Your task to perform on an android device: toggle translation in the chrome app Image 0: 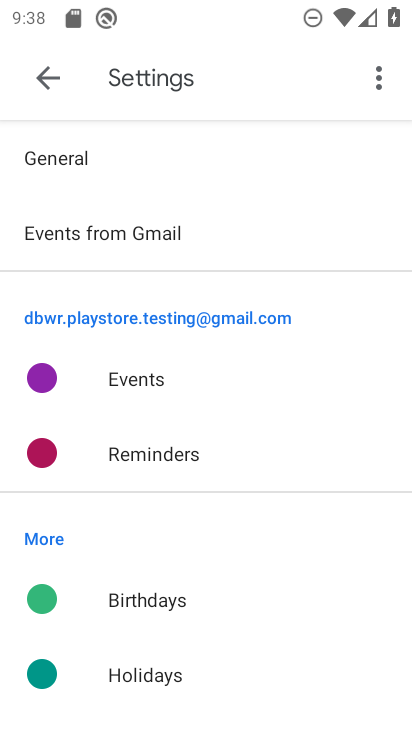
Step 0: press home button
Your task to perform on an android device: toggle translation in the chrome app Image 1: 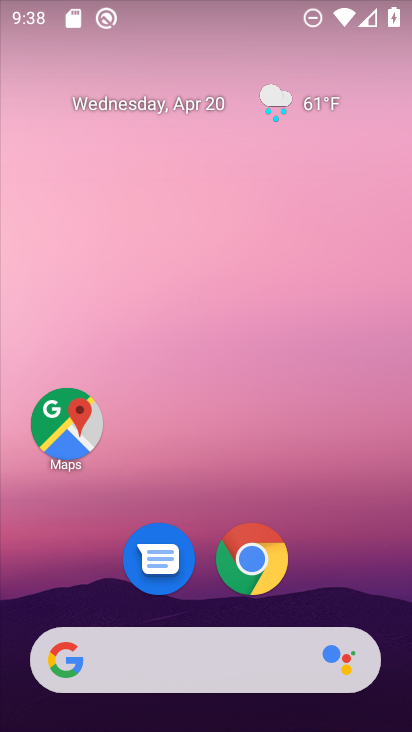
Step 1: click (250, 560)
Your task to perform on an android device: toggle translation in the chrome app Image 2: 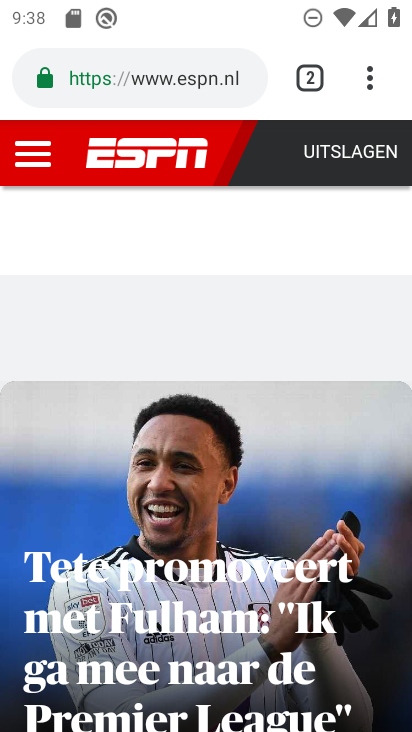
Step 2: click (365, 86)
Your task to perform on an android device: toggle translation in the chrome app Image 3: 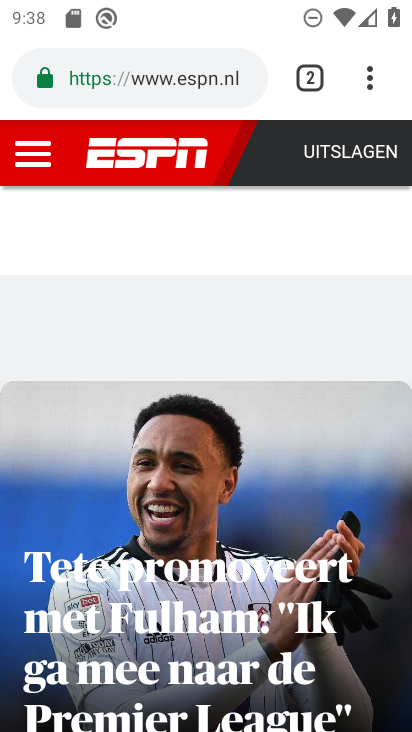
Step 3: click (367, 88)
Your task to perform on an android device: toggle translation in the chrome app Image 4: 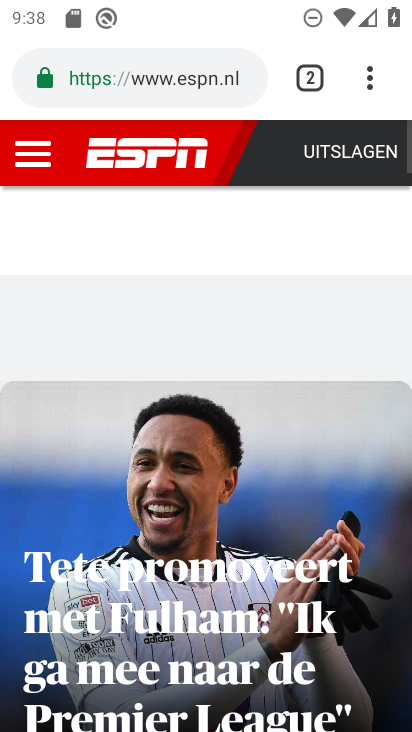
Step 4: click (367, 88)
Your task to perform on an android device: toggle translation in the chrome app Image 5: 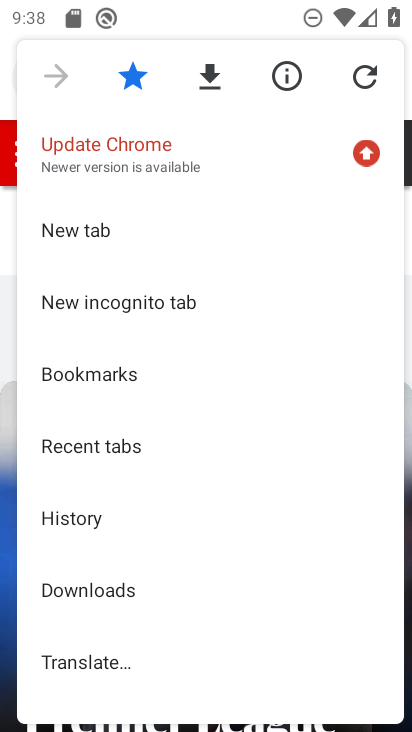
Step 5: drag from (204, 657) to (236, 367)
Your task to perform on an android device: toggle translation in the chrome app Image 6: 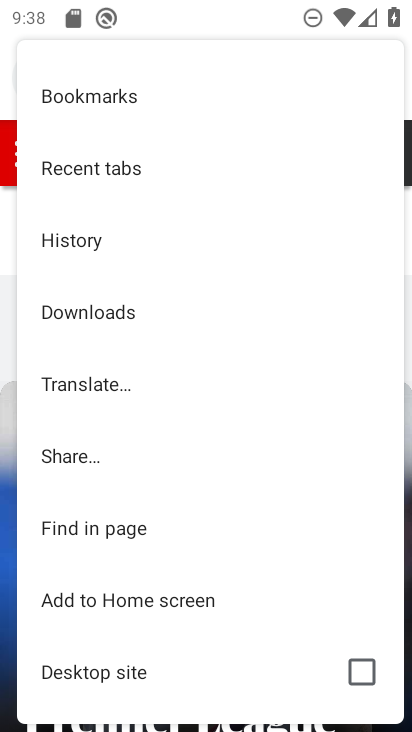
Step 6: drag from (234, 640) to (227, 303)
Your task to perform on an android device: toggle translation in the chrome app Image 7: 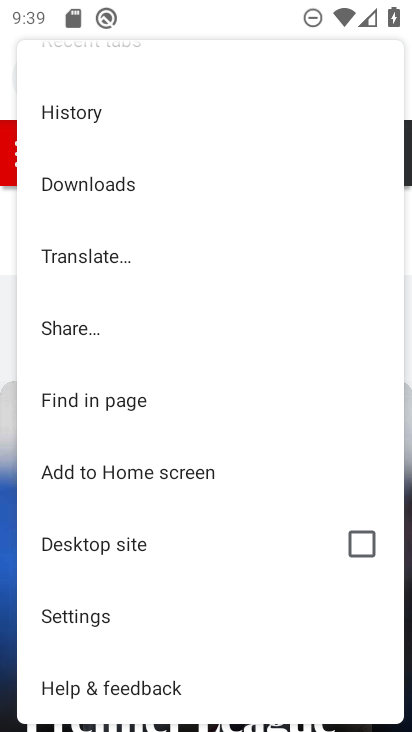
Step 7: click (67, 619)
Your task to perform on an android device: toggle translation in the chrome app Image 8: 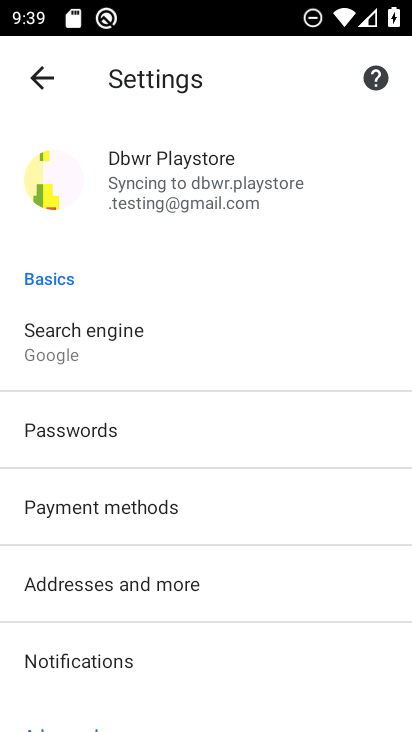
Step 8: drag from (248, 637) to (269, 397)
Your task to perform on an android device: toggle translation in the chrome app Image 9: 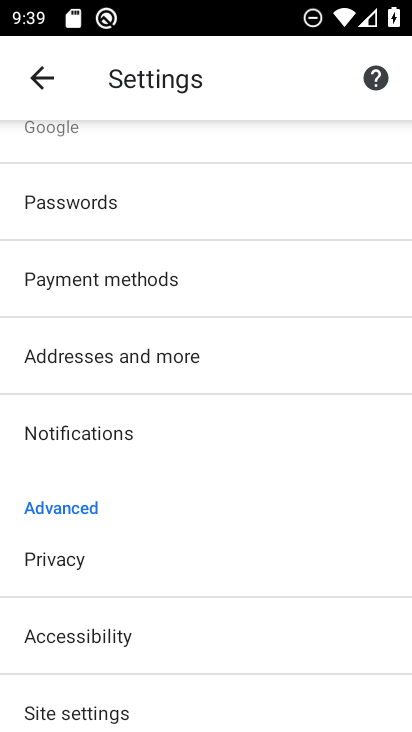
Step 9: drag from (210, 660) to (270, 300)
Your task to perform on an android device: toggle translation in the chrome app Image 10: 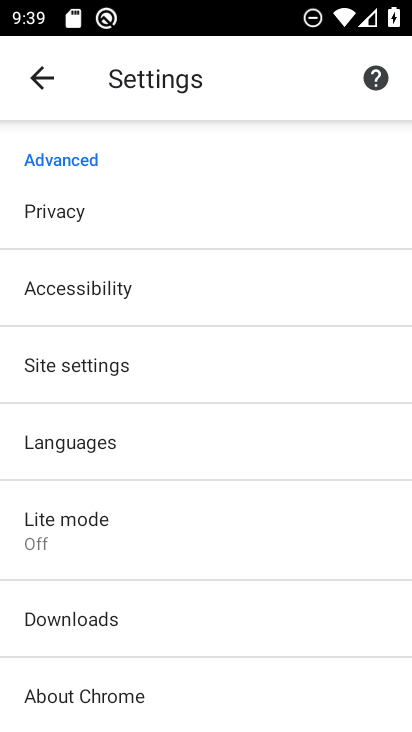
Step 10: click (73, 458)
Your task to perform on an android device: toggle translation in the chrome app Image 11: 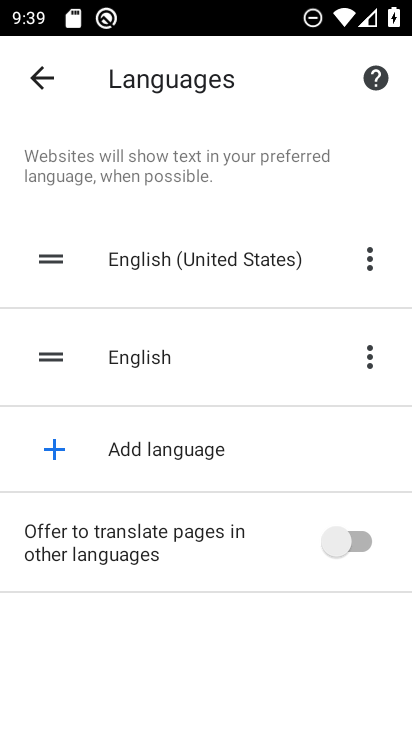
Step 11: click (364, 545)
Your task to perform on an android device: toggle translation in the chrome app Image 12: 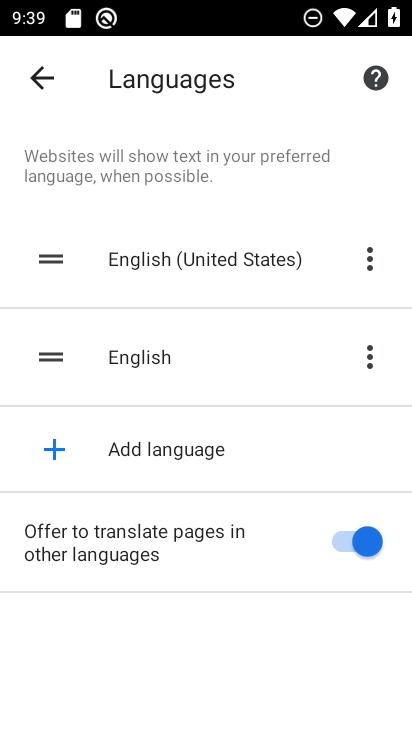
Step 12: task complete